Your task to perform on an android device: Open Wikipedia Image 0: 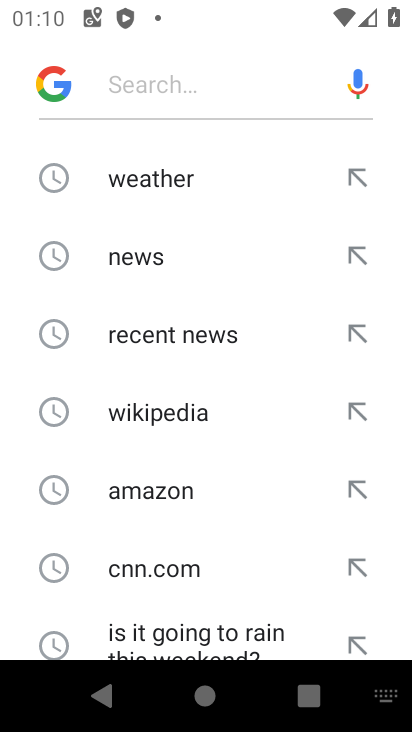
Step 0: press home button
Your task to perform on an android device: Open Wikipedia Image 1: 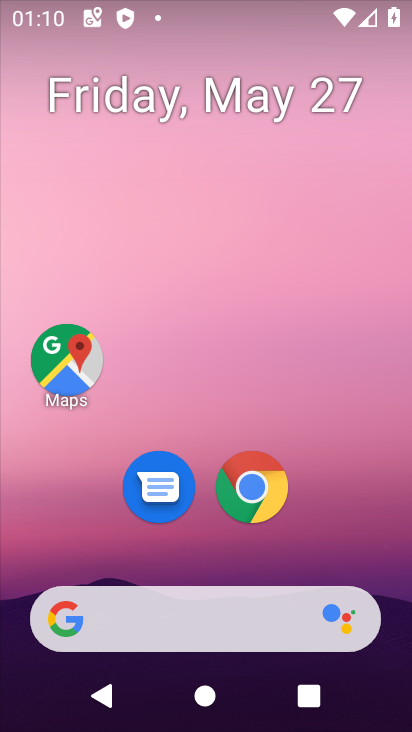
Step 1: click (247, 496)
Your task to perform on an android device: Open Wikipedia Image 2: 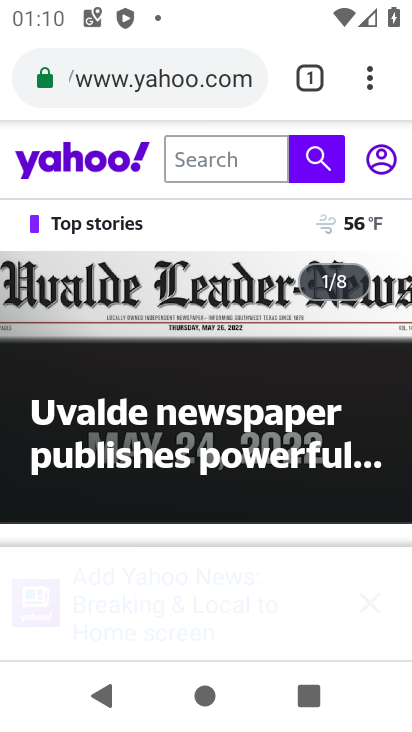
Step 2: click (321, 81)
Your task to perform on an android device: Open Wikipedia Image 3: 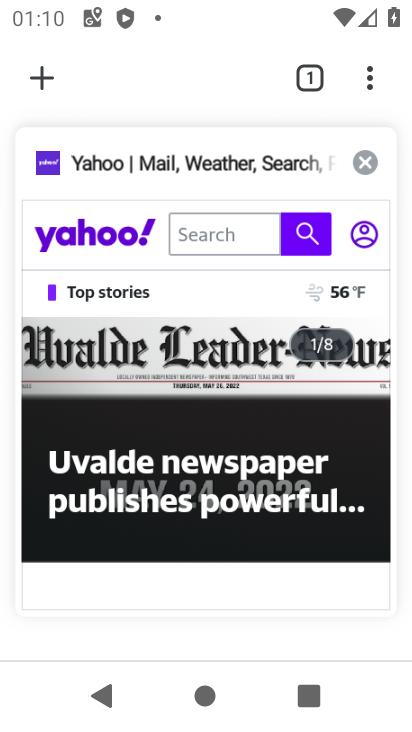
Step 3: click (367, 161)
Your task to perform on an android device: Open Wikipedia Image 4: 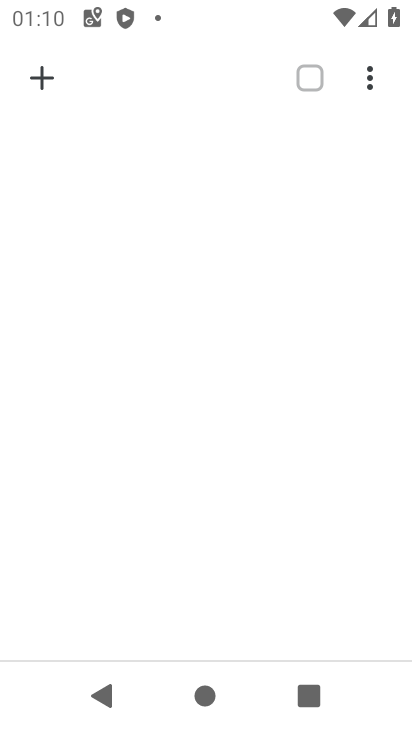
Step 4: click (32, 74)
Your task to perform on an android device: Open Wikipedia Image 5: 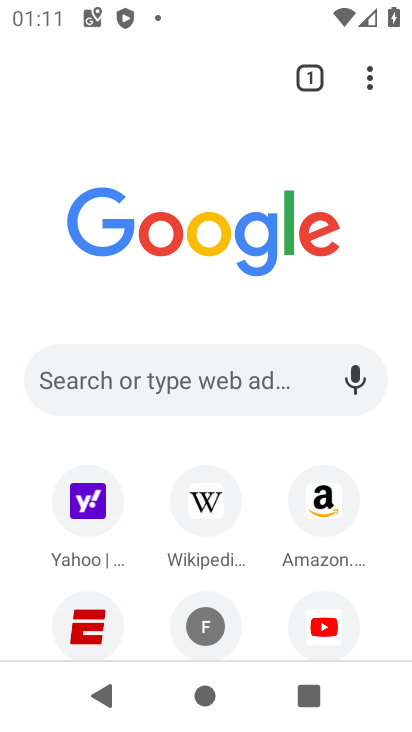
Step 5: click (220, 509)
Your task to perform on an android device: Open Wikipedia Image 6: 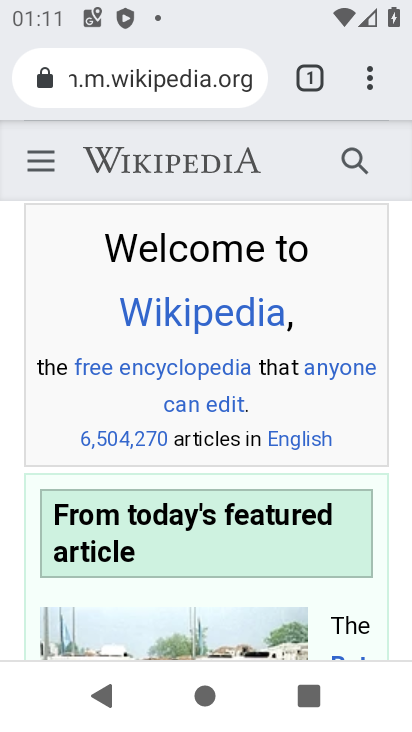
Step 6: task complete